Your task to perform on an android device: Find coffee shops on Maps Image 0: 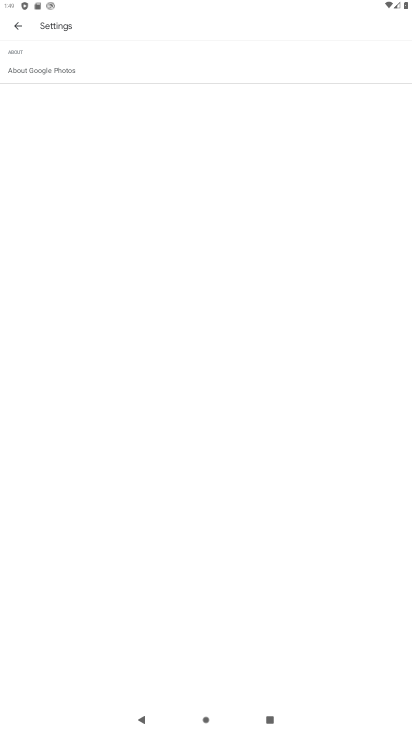
Step 0: press home button
Your task to perform on an android device: Find coffee shops on Maps Image 1: 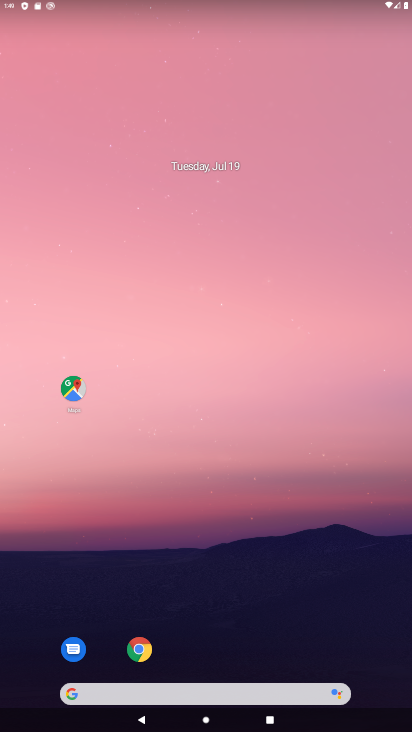
Step 1: click (73, 388)
Your task to perform on an android device: Find coffee shops on Maps Image 2: 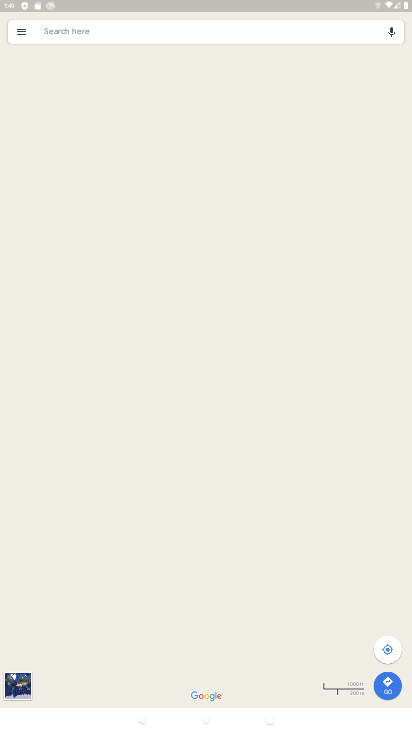
Step 2: click (187, 31)
Your task to perform on an android device: Find coffee shops on Maps Image 3: 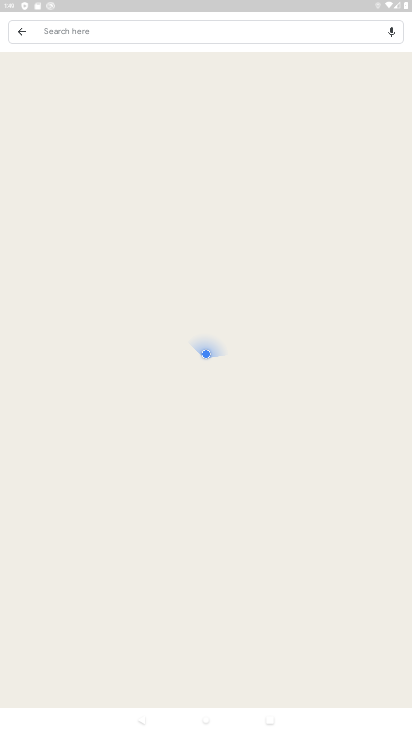
Step 3: click (181, 27)
Your task to perform on an android device: Find coffee shops on Maps Image 4: 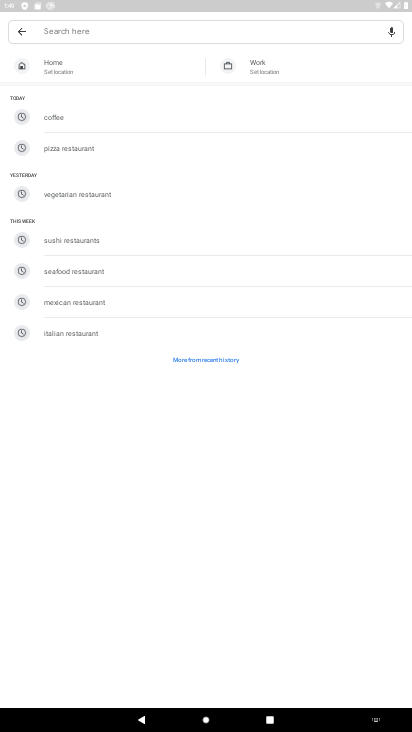
Step 4: type "coffee shops"
Your task to perform on an android device: Find coffee shops on Maps Image 5: 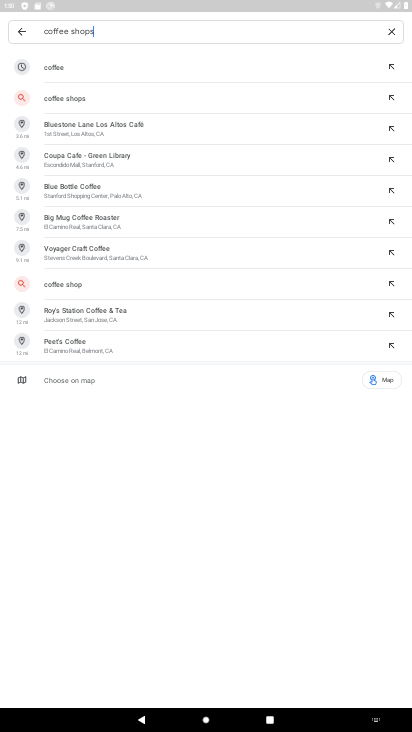
Step 5: click (175, 97)
Your task to perform on an android device: Find coffee shops on Maps Image 6: 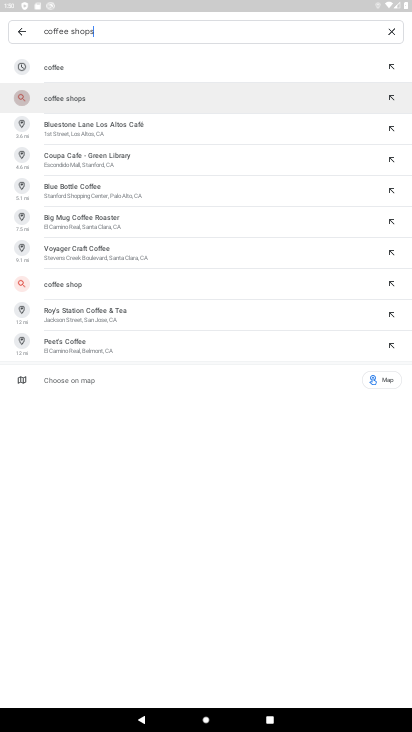
Step 6: task complete